Your task to perform on an android device: show emergency info Image 0: 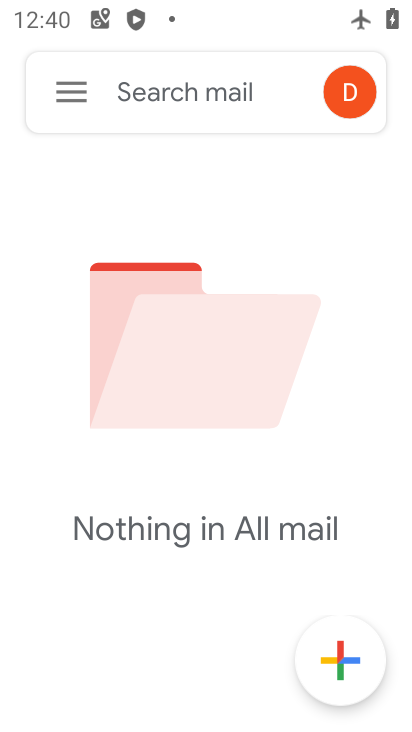
Step 0: press home button
Your task to perform on an android device: show emergency info Image 1: 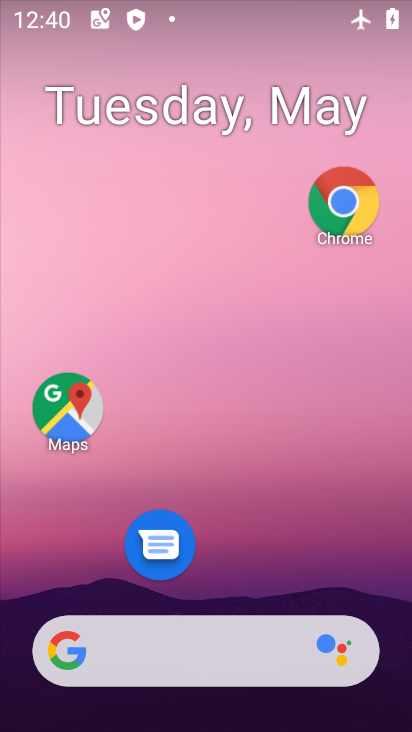
Step 1: drag from (220, 592) to (217, 59)
Your task to perform on an android device: show emergency info Image 2: 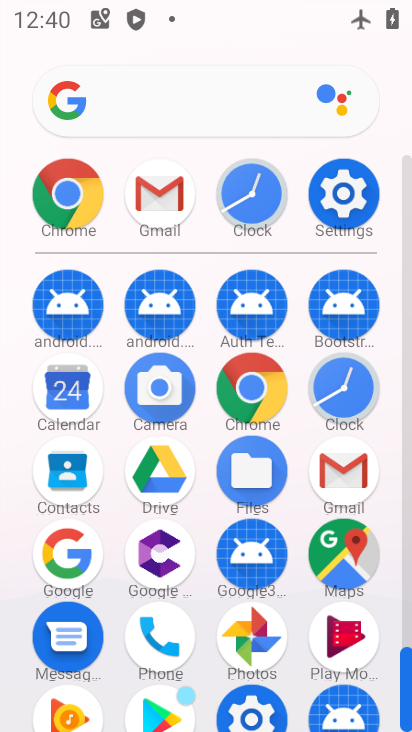
Step 2: click (359, 176)
Your task to perform on an android device: show emergency info Image 3: 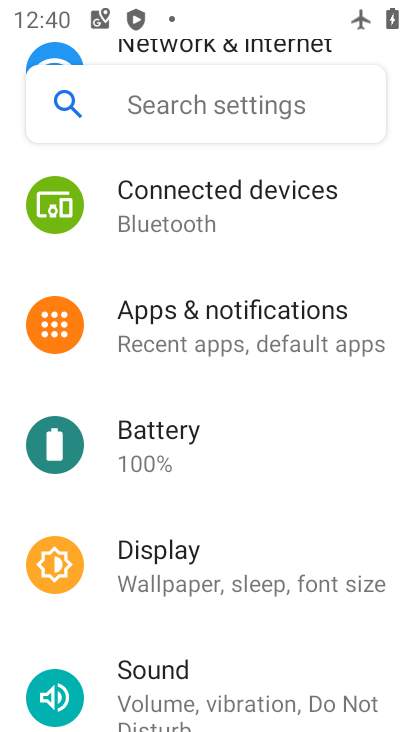
Step 3: drag from (104, 602) to (236, 30)
Your task to perform on an android device: show emergency info Image 4: 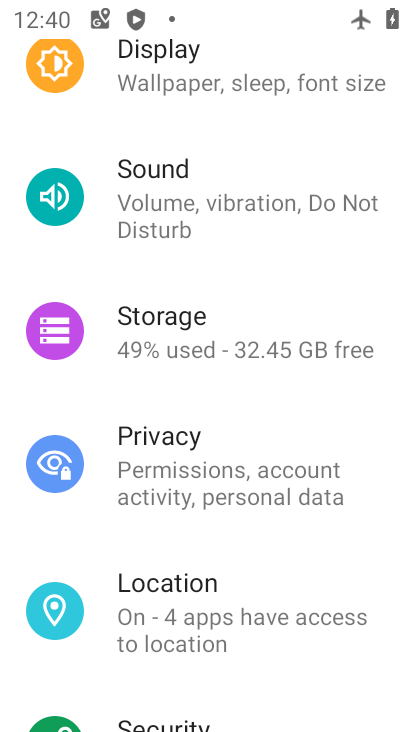
Step 4: drag from (127, 677) to (213, 231)
Your task to perform on an android device: show emergency info Image 5: 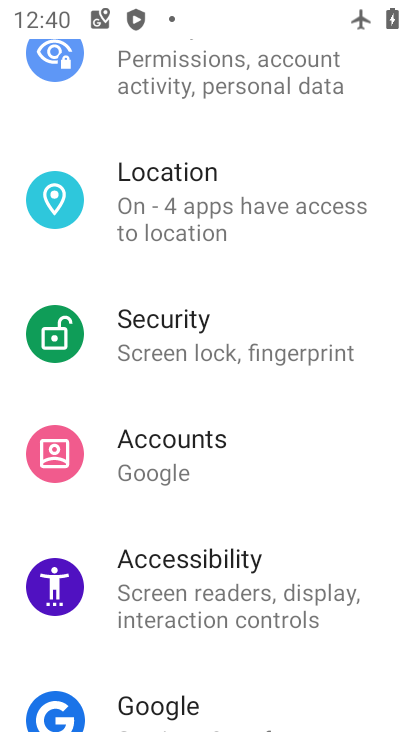
Step 5: drag from (183, 644) to (226, 160)
Your task to perform on an android device: show emergency info Image 6: 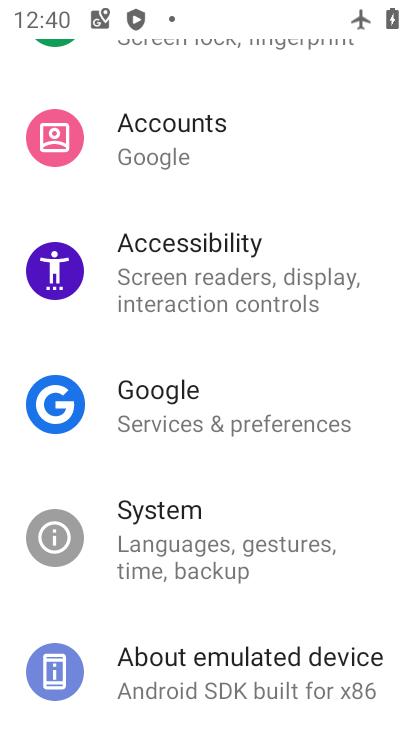
Step 6: drag from (131, 618) to (253, 145)
Your task to perform on an android device: show emergency info Image 7: 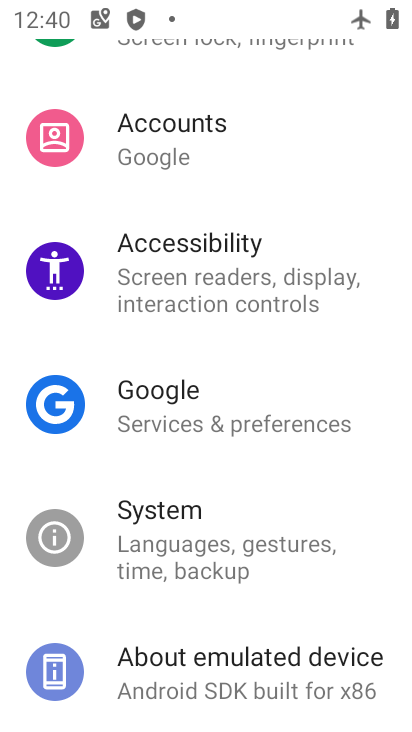
Step 7: drag from (163, 611) to (252, 186)
Your task to perform on an android device: show emergency info Image 8: 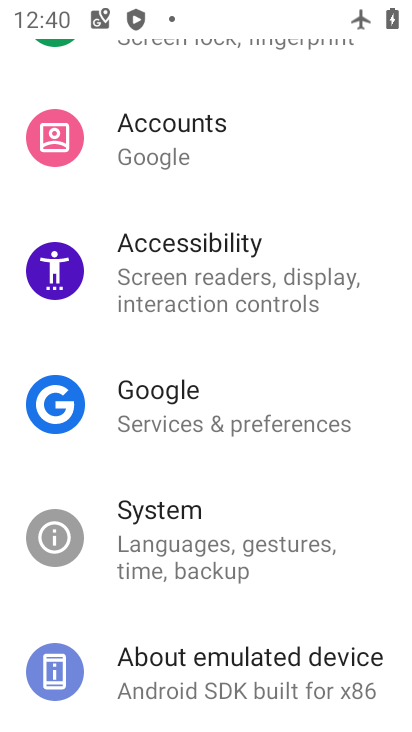
Step 8: click (161, 652)
Your task to perform on an android device: show emergency info Image 9: 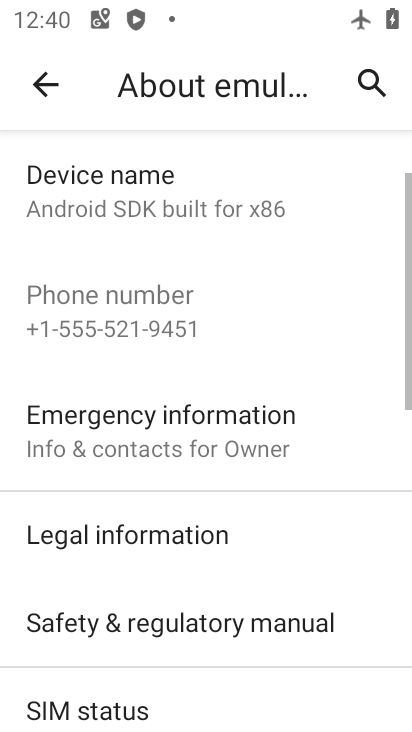
Step 9: click (212, 424)
Your task to perform on an android device: show emergency info Image 10: 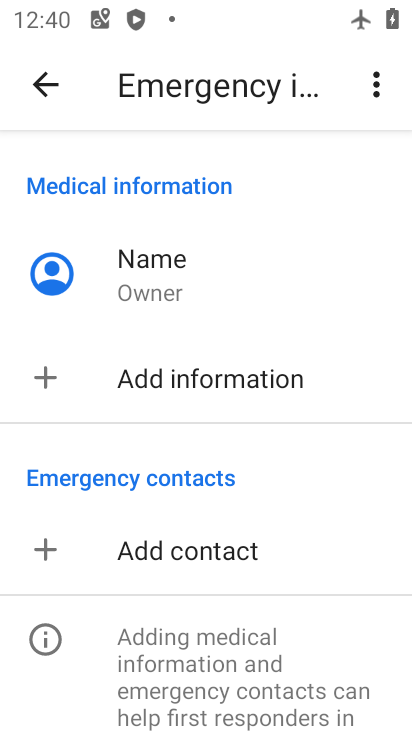
Step 10: task complete